Your task to perform on an android device: Open the calendar app, open the side menu, and click the "Day" option Image 0: 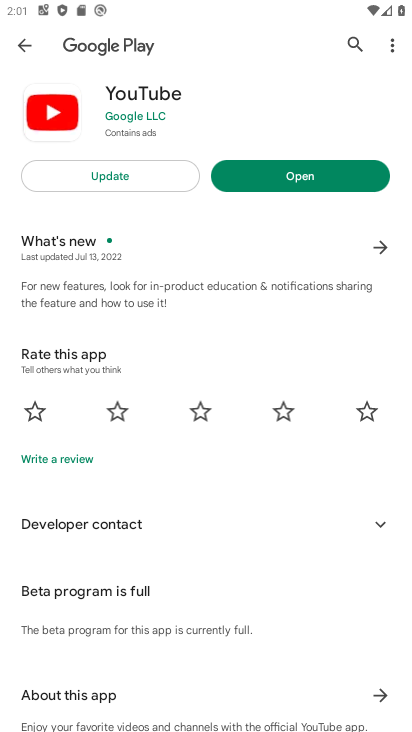
Step 0: press home button
Your task to perform on an android device: Open the calendar app, open the side menu, and click the "Day" option Image 1: 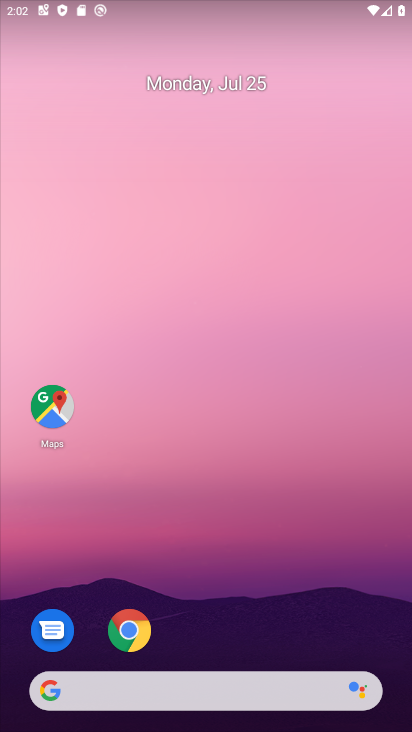
Step 1: drag from (255, 637) to (197, 258)
Your task to perform on an android device: Open the calendar app, open the side menu, and click the "Day" option Image 2: 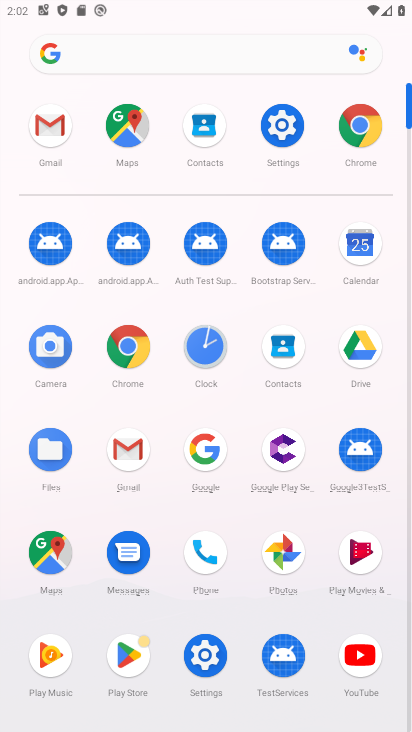
Step 2: click (189, 148)
Your task to perform on an android device: Open the calendar app, open the side menu, and click the "Day" option Image 3: 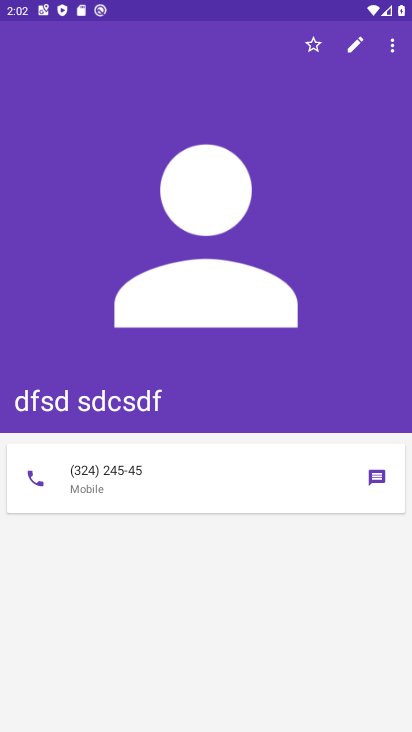
Step 3: task complete